Your task to perform on an android device: install app "The Home Depot" Image 0: 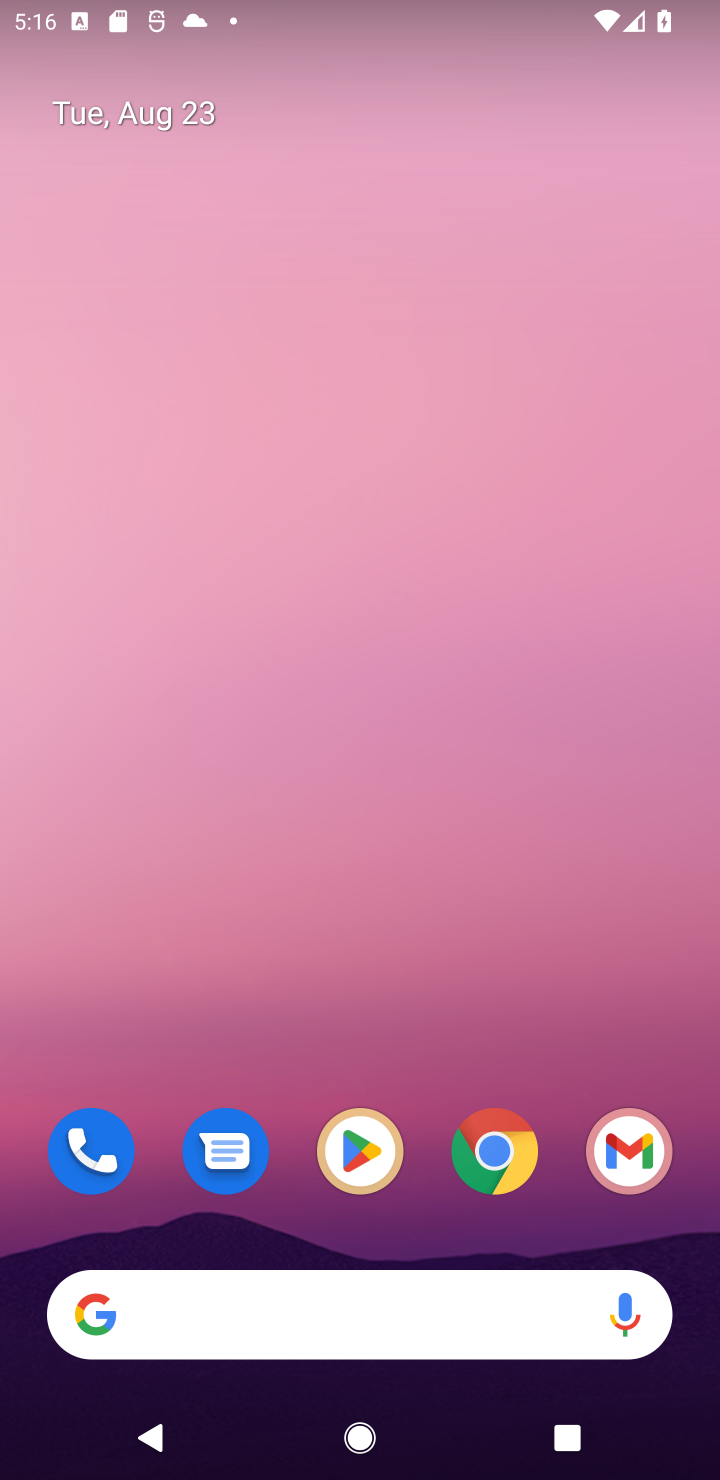
Step 0: click (353, 1138)
Your task to perform on an android device: install app "The Home Depot" Image 1: 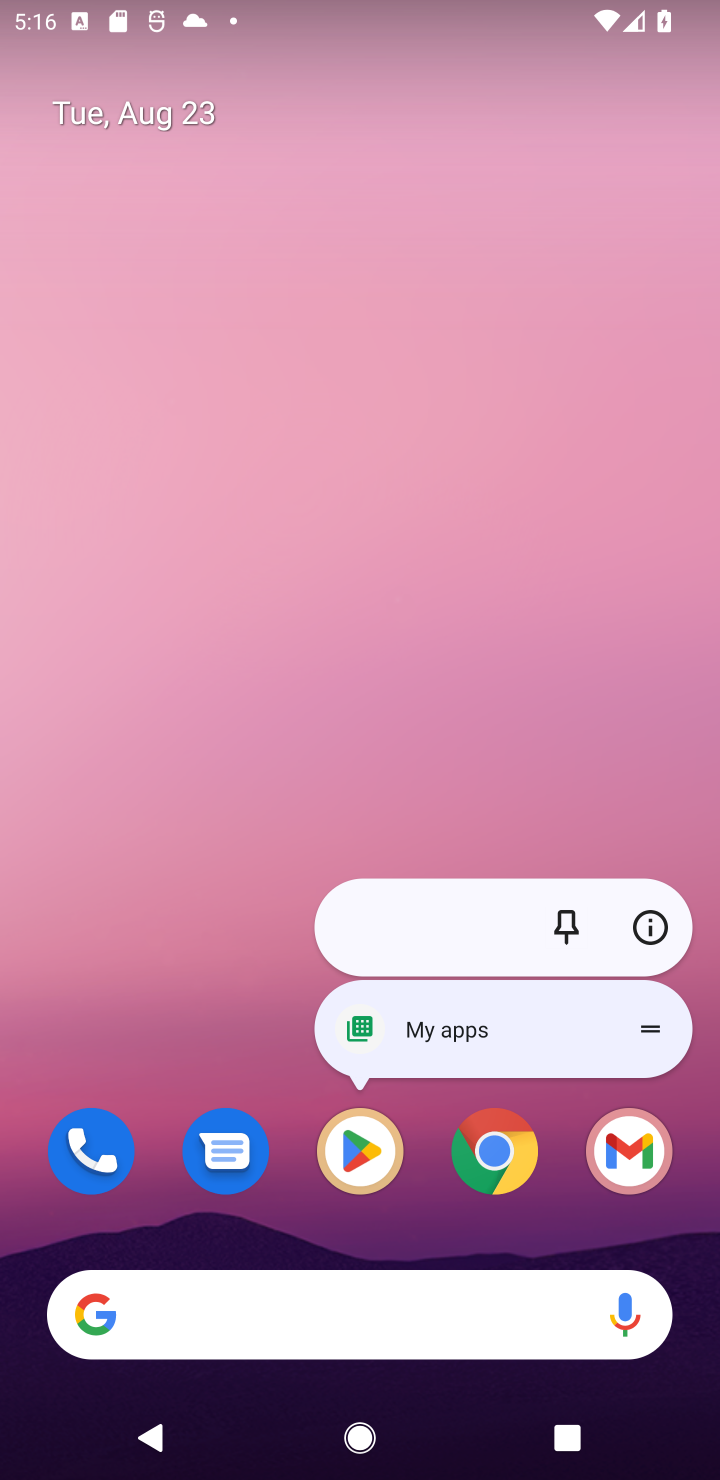
Step 1: click (349, 1161)
Your task to perform on an android device: install app "The Home Depot" Image 2: 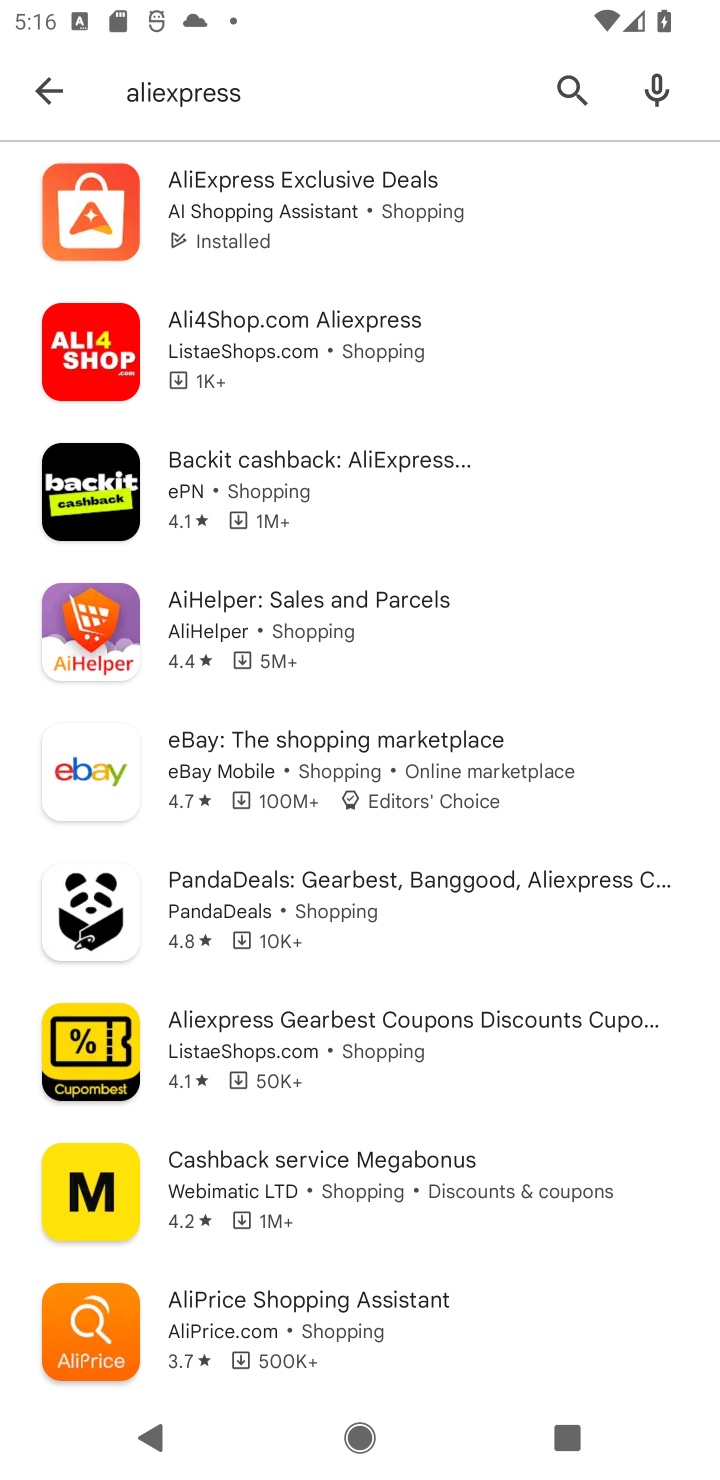
Step 2: click (555, 97)
Your task to perform on an android device: install app "The Home Depot" Image 3: 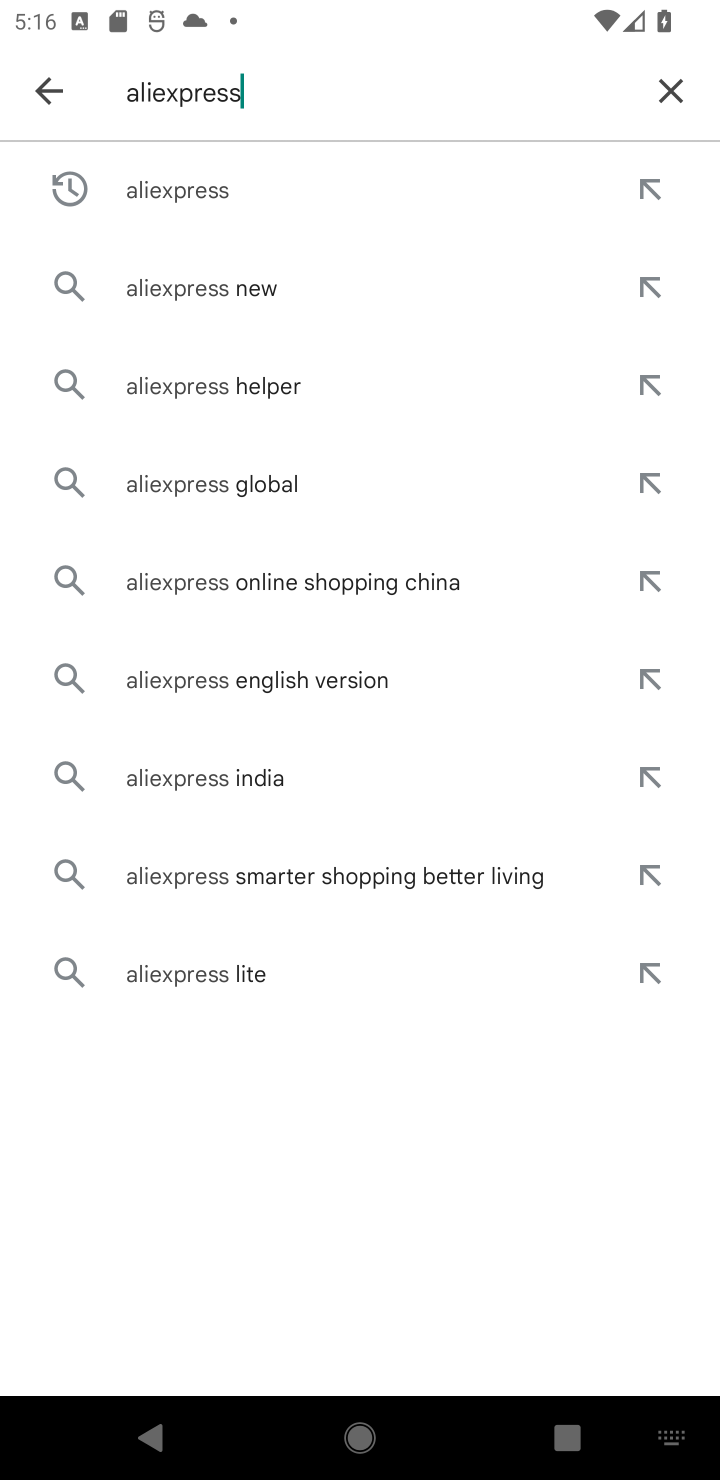
Step 3: click (666, 83)
Your task to perform on an android device: install app "The Home Depot" Image 4: 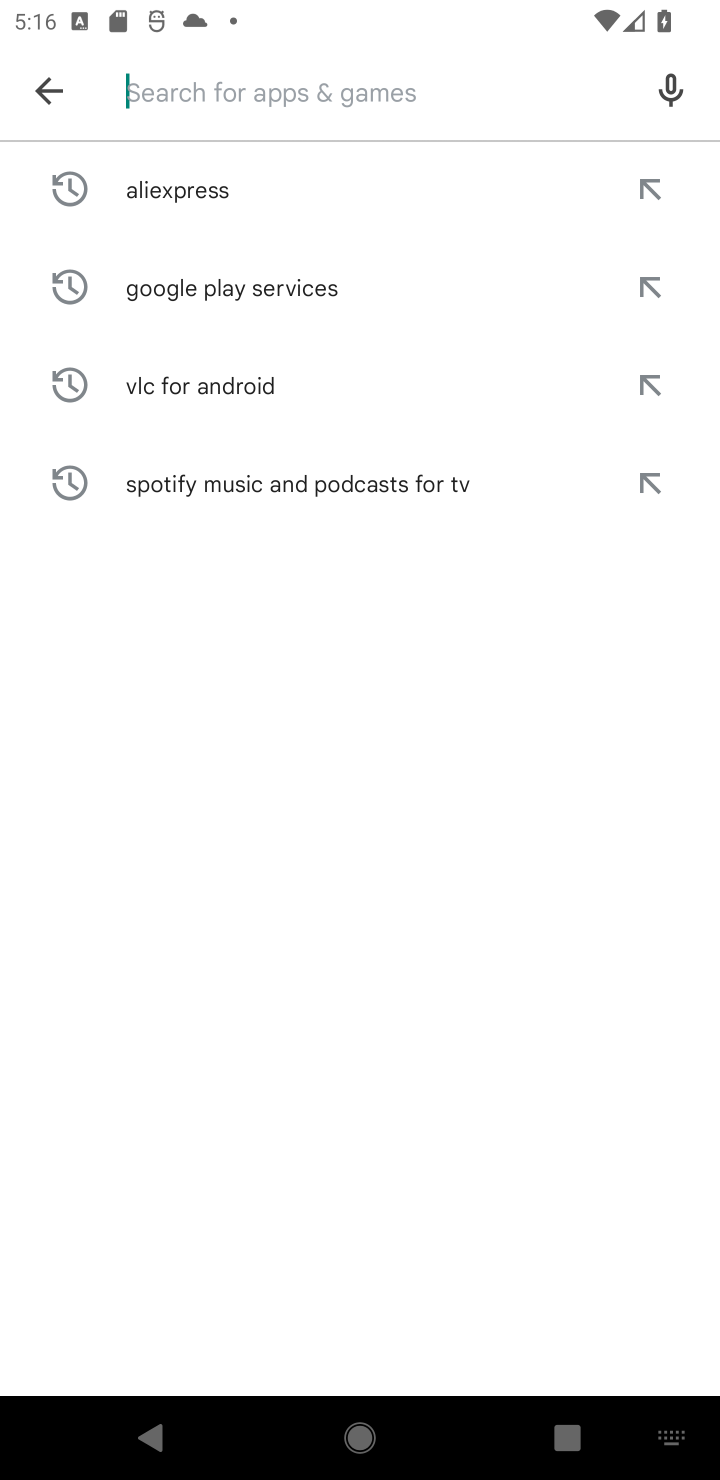
Step 4: type "The Home Depot"
Your task to perform on an android device: install app "The Home Depot" Image 5: 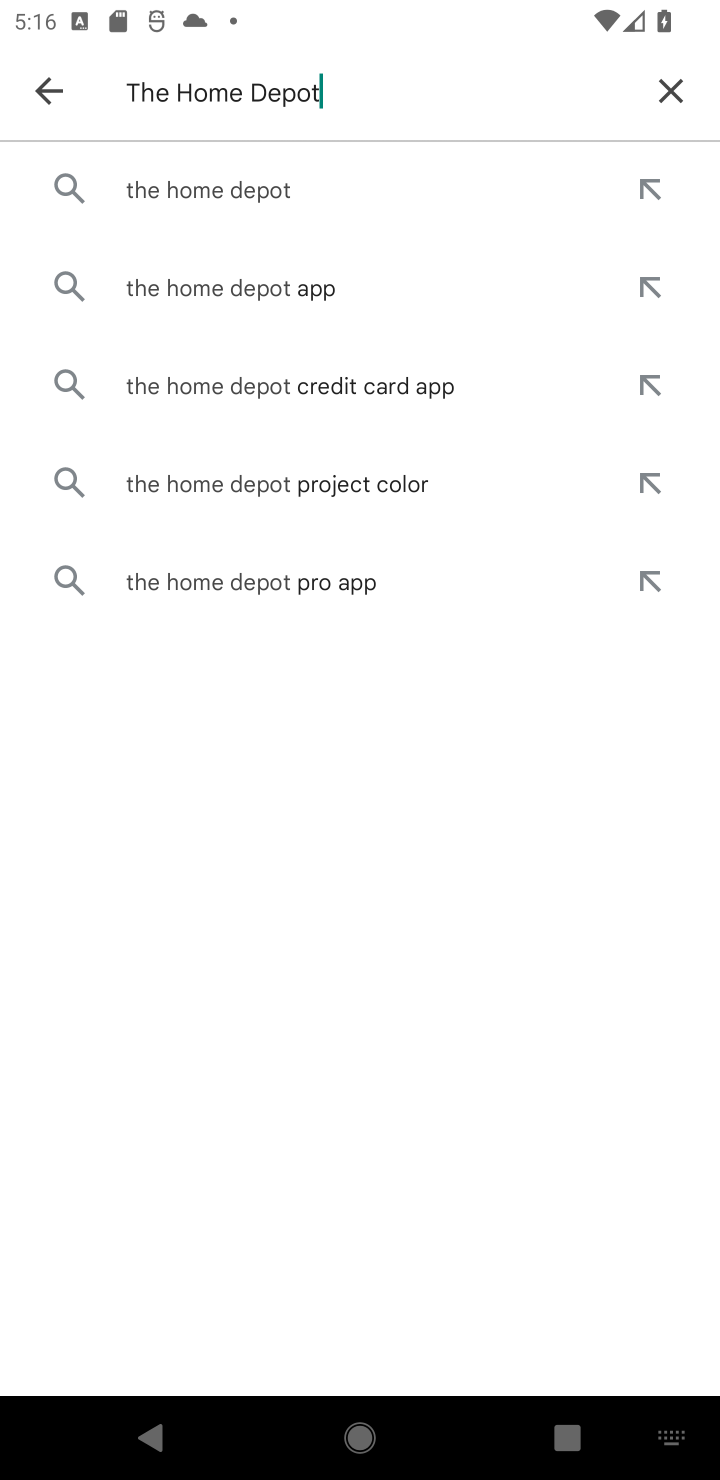
Step 5: click (218, 199)
Your task to perform on an android device: install app "The Home Depot" Image 6: 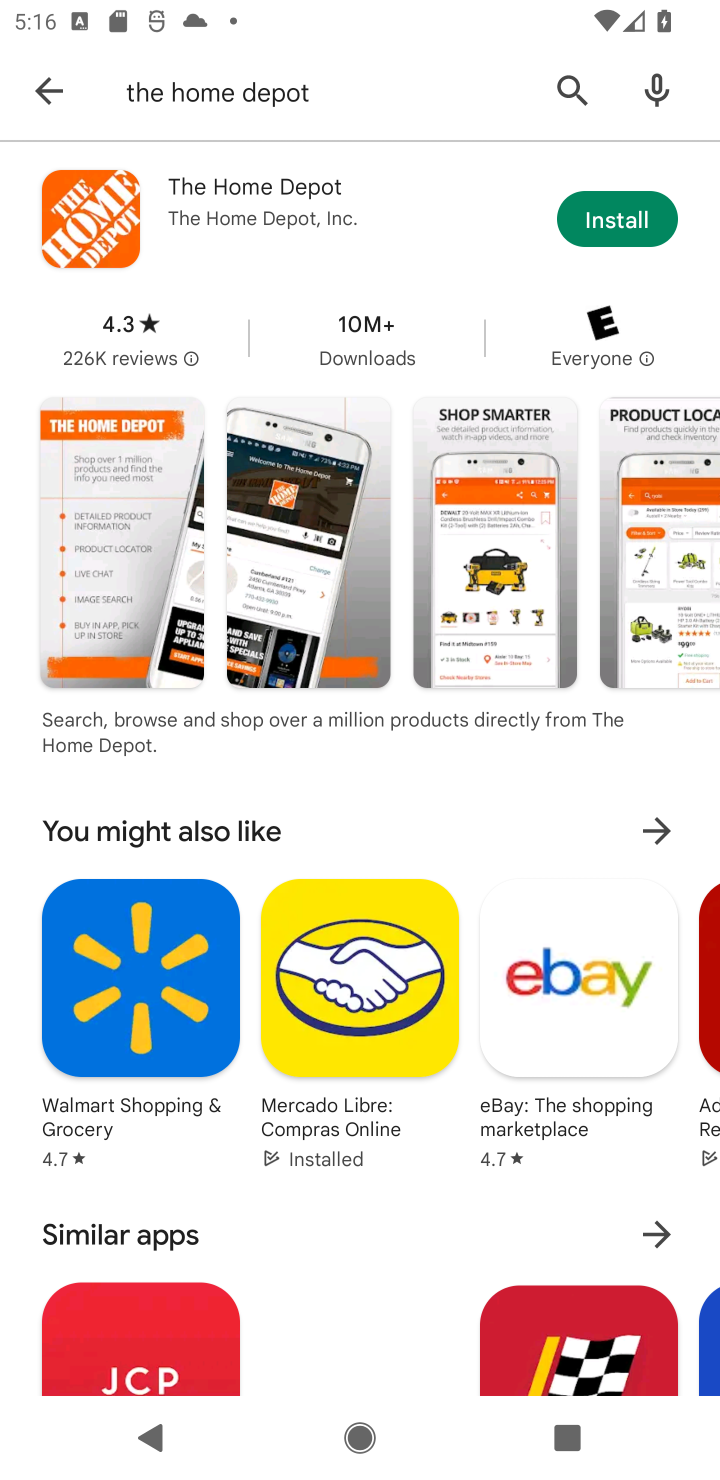
Step 6: click (592, 230)
Your task to perform on an android device: install app "The Home Depot" Image 7: 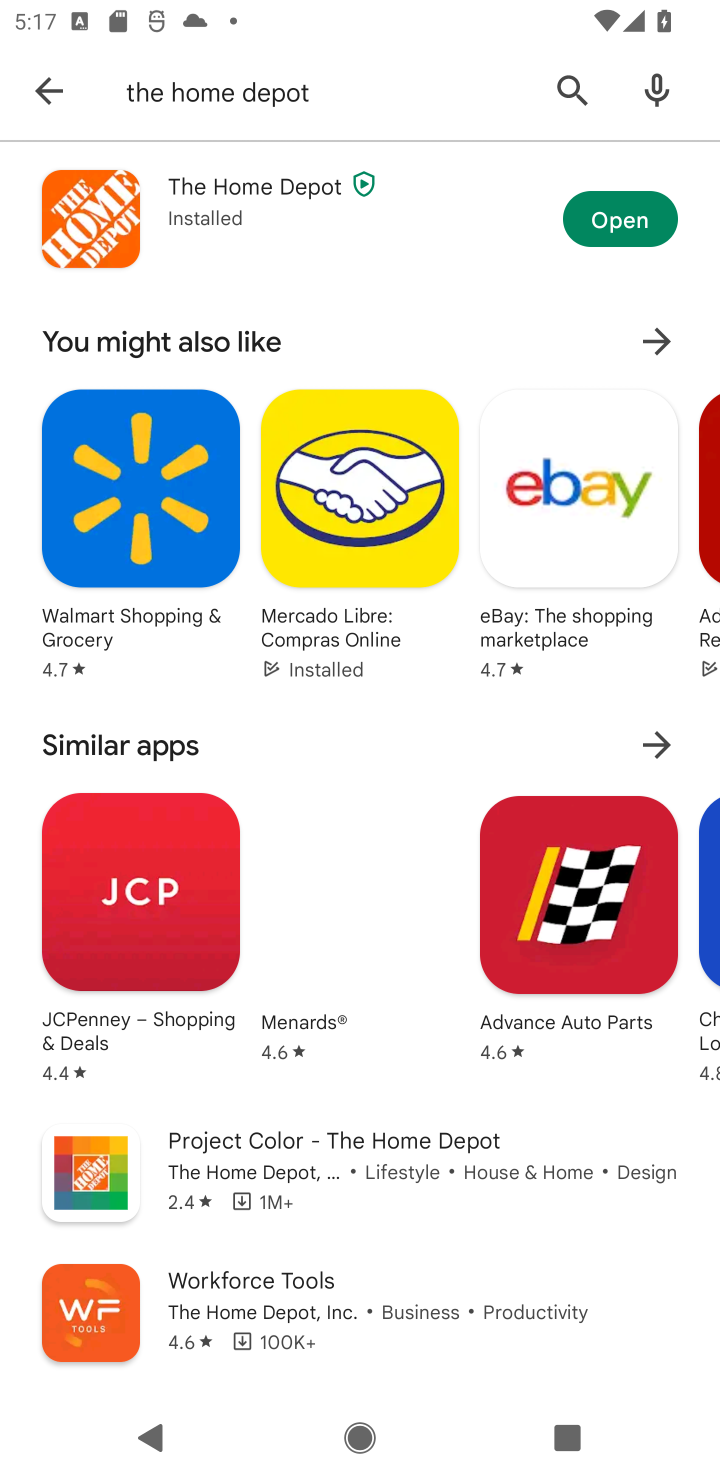
Step 7: task complete